Your task to perform on an android device: snooze an email in the gmail app Image 0: 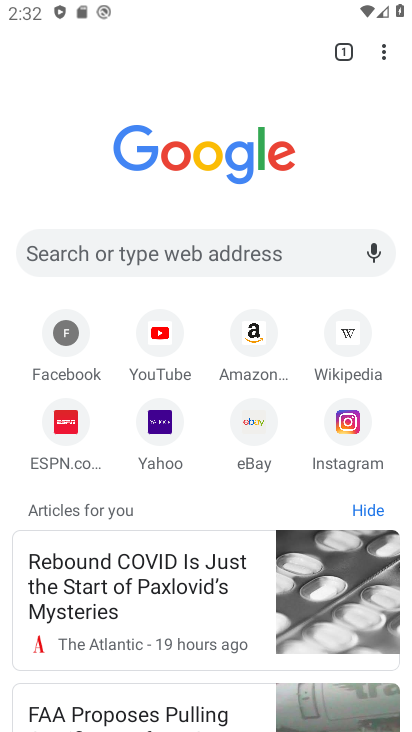
Step 0: press home button
Your task to perform on an android device: snooze an email in the gmail app Image 1: 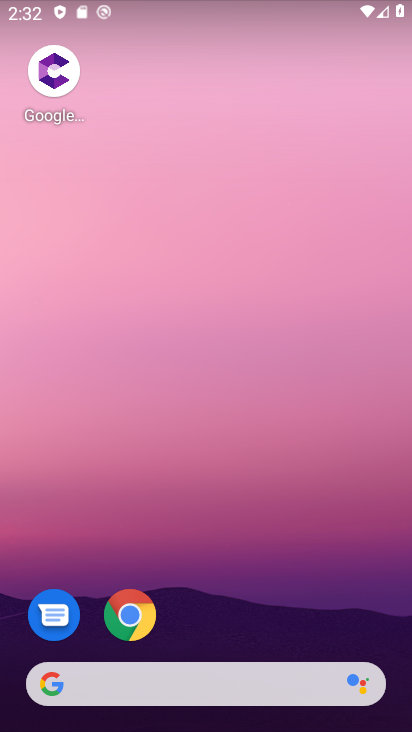
Step 1: drag from (256, 689) to (301, 176)
Your task to perform on an android device: snooze an email in the gmail app Image 2: 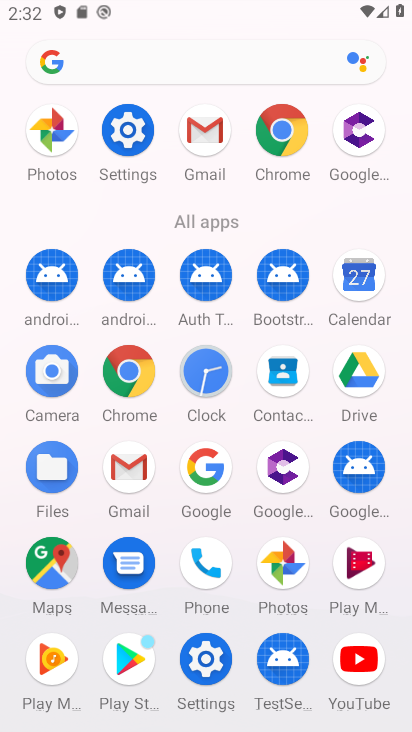
Step 2: click (127, 463)
Your task to perform on an android device: snooze an email in the gmail app Image 3: 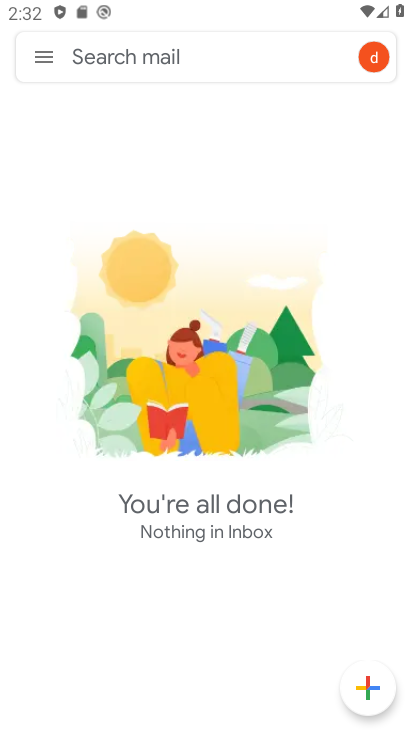
Step 3: click (54, 55)
Your task to perform on an android device: snooze an email in the gmail app Image 4: 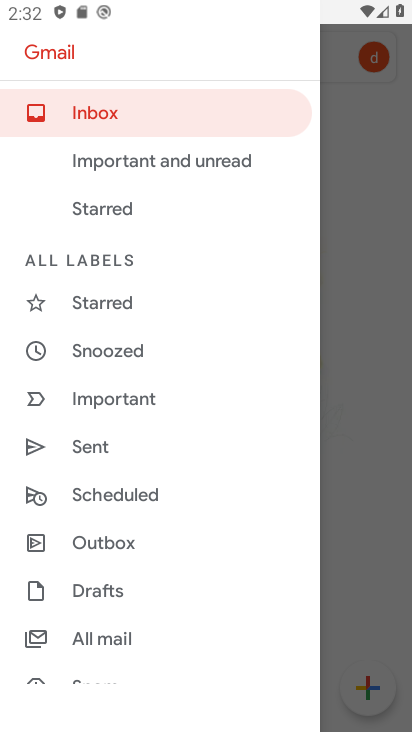
Step 4: click (94, 347)
Your task to perform on an android device: snooze an email in the gmail app Image 5: 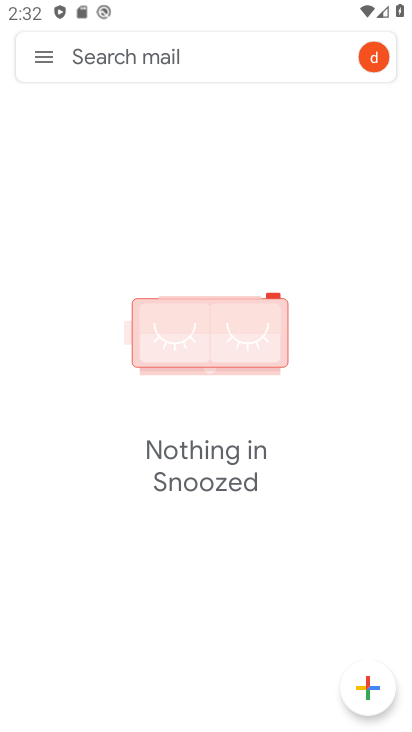
Step 5: task complete